Your task to perform on an android device: Check the news Image 0: 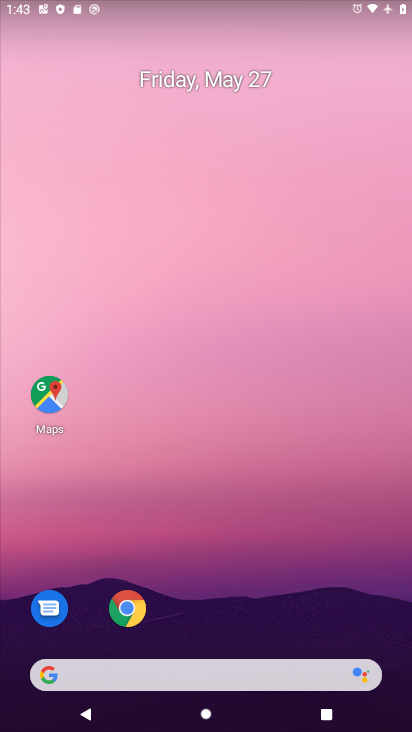
Step 0: press home button
Your task to perform on an android device: Check the news Image 1: 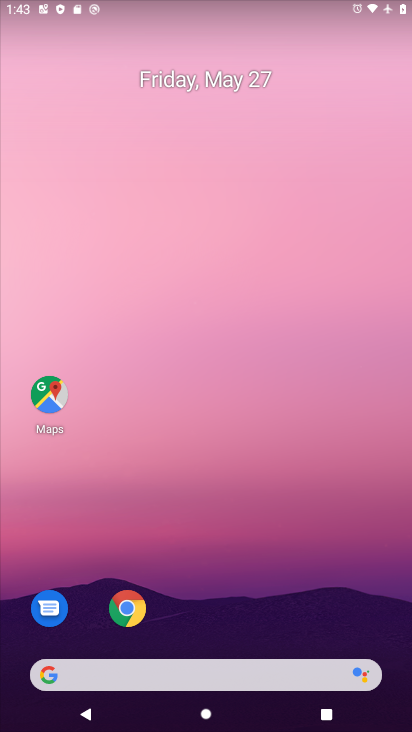
Step 1: click (50, 673)
Your task to perform on an android device: Check the news Image 2: 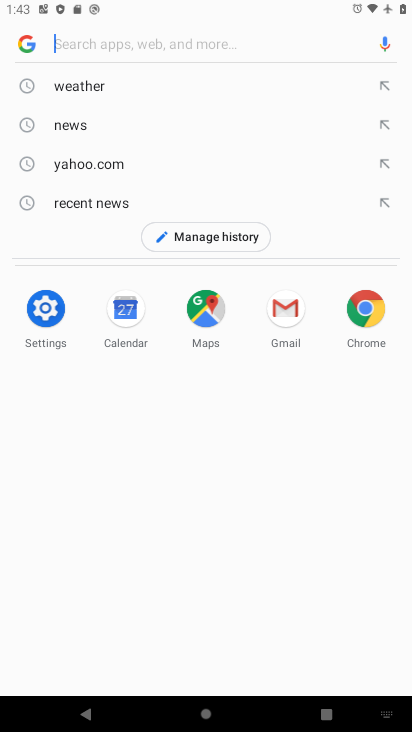
Step 2: click (76, 125)
Your task to perform on an android device: Check the news Image 3: 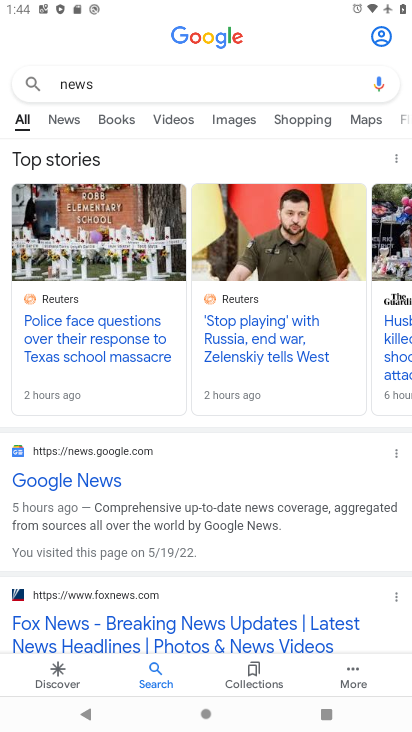
Step 3: click (64, 119)
Your task to perform on an android device: Check the news Image 4: 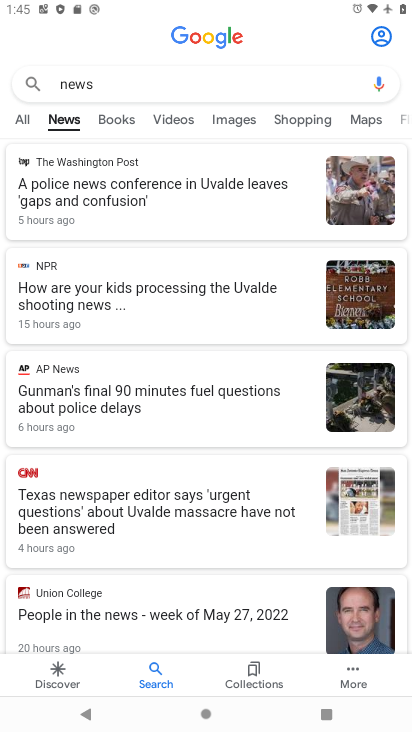
Step 4: task complete